Your task to perform on an android device: set an alarm Image 0: 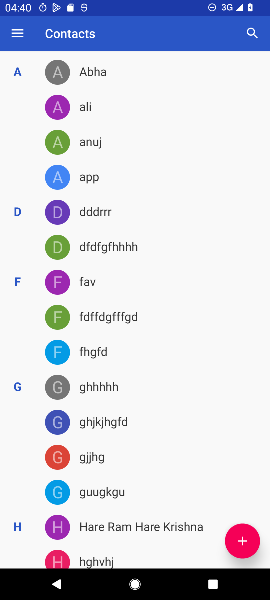
Step 0: press home button
Your task to perform on an android device: set an alarm Image 1: 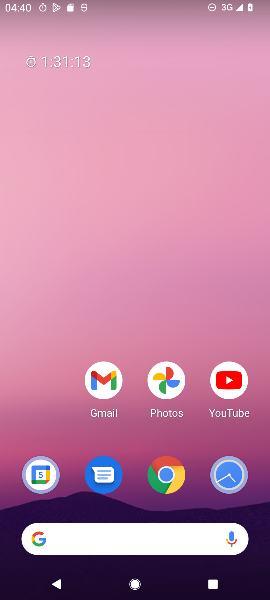
Step 1: drag from (52, 412) to (56, 200)
Your task to perform on an android device: set an alarm Image 2: 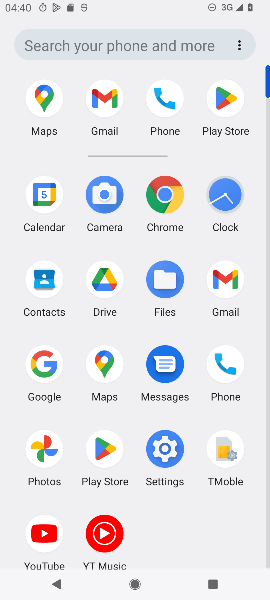
Step 2: click (225, 192)
Your task to perform on an android device: set an alarm Image 3: 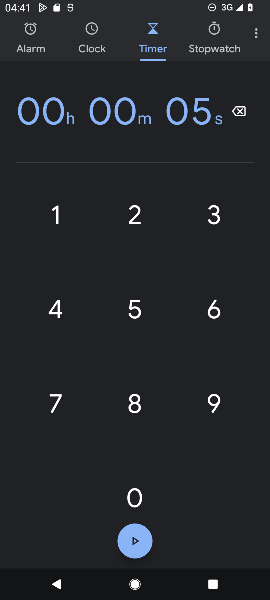
Step 3: click (38, 44)
Your task to perform on an android device: set an alarm Image 4: 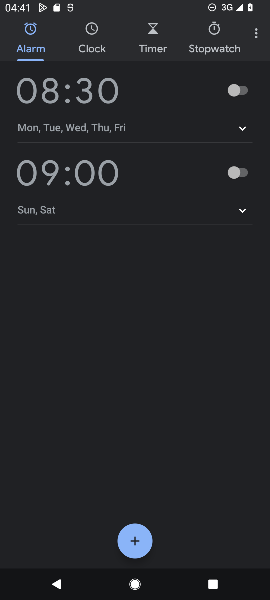
Step 4: click (133, 544)
Your task to perform on an android device: set an alarm Image 5: 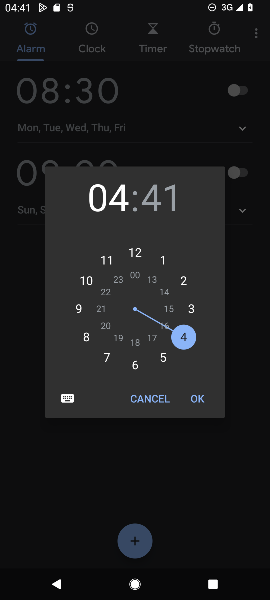
Step 5: click (195, 400)
Your task to perform on an android device: set an alarm Image 6: 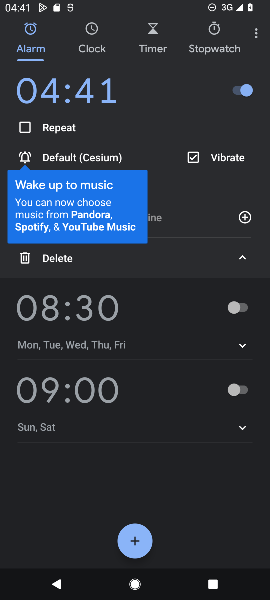
Step 6: task complete